Your task to perform on an android device: Open Google Chrome Image 0: 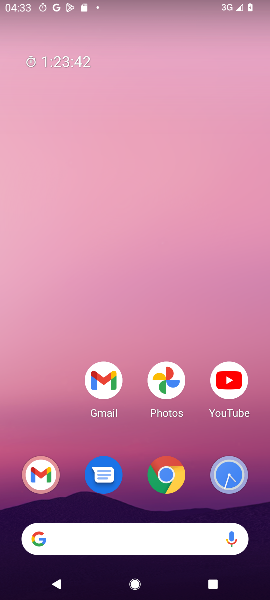
Step 0: press home button
Your task to perform on an android device: Open Google Chrome Image 1: 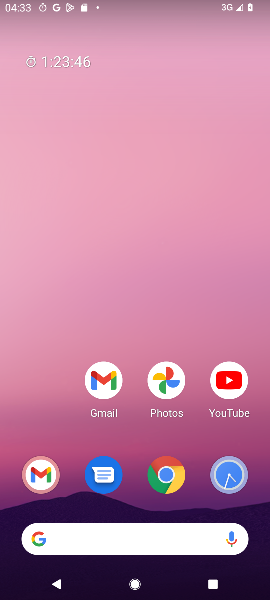
Step 1: drag from (66, 433) to (72, 208)
Your task to perform on an android device: Open Google Chrome Image 2: 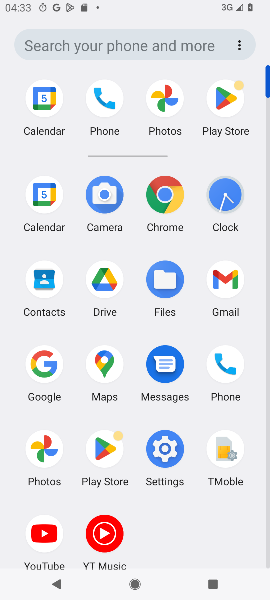
Step 2: click (165, 197)
Your task to perform on an android device: Open Google Chrome Image 3: 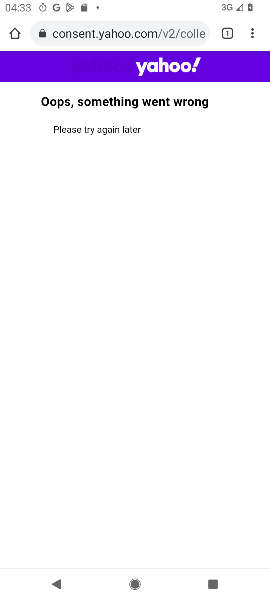
Step 3: task complete